Your task to perform on an android device: Toggle the flashlight Image 0: 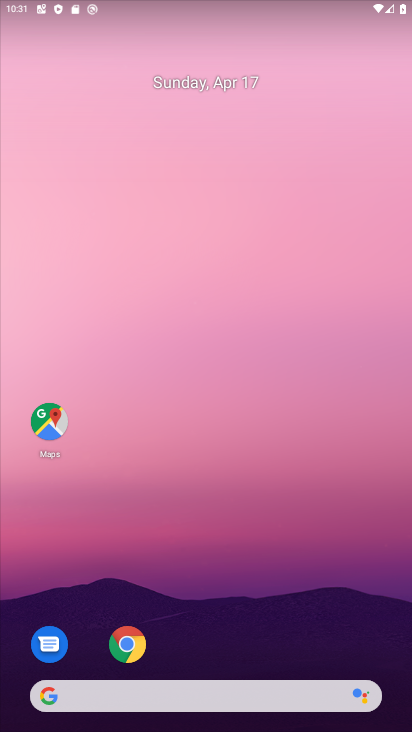
Step 0: drag from (222, 653) to (405, 94)
Your task to perform on an android device: Toggle the flashlight Image 1: 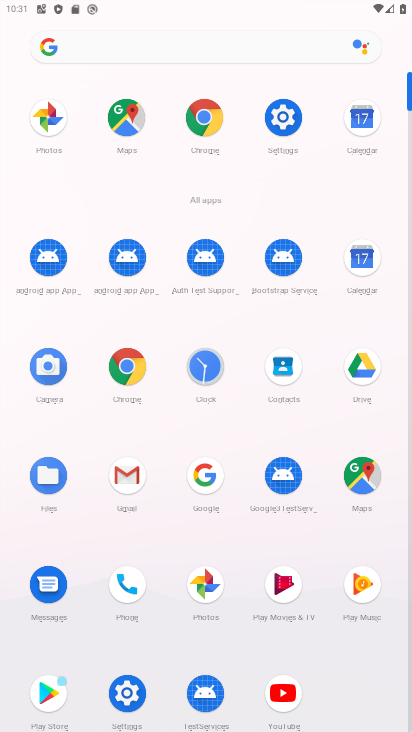
Step 1: click (288, 125)
Your task to perform on an android device: Toggle the flashlight Image 2: 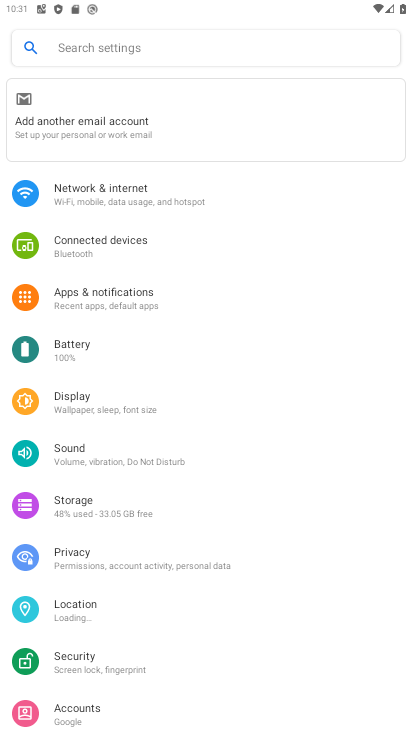
Step 2: click (172, 46)
Your task to perform on an android device: Toggle the flashlight Image 3: 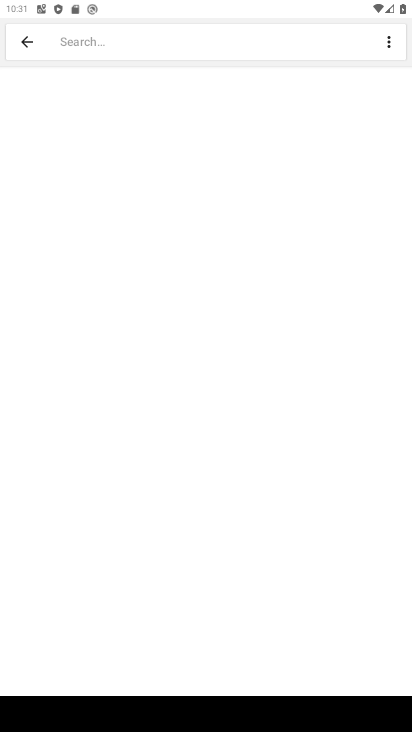
Step 3: type "flashlight"
Your task to perform on an android device: Toggle the flashlight Image 4: 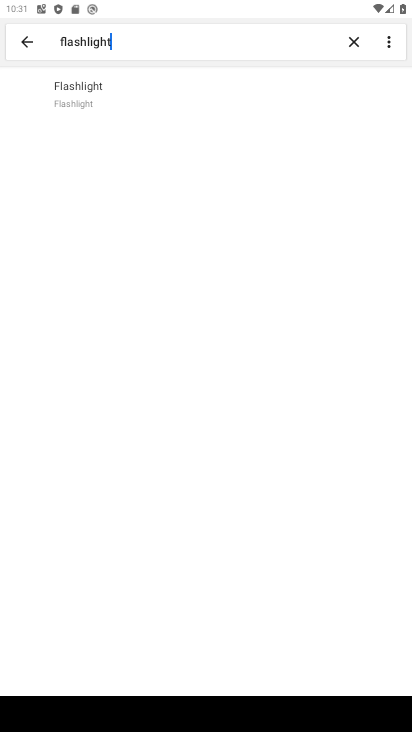
Step 4: click (98, 93)
Your task to perform on an android device: Toggle the flashlight Image 5: 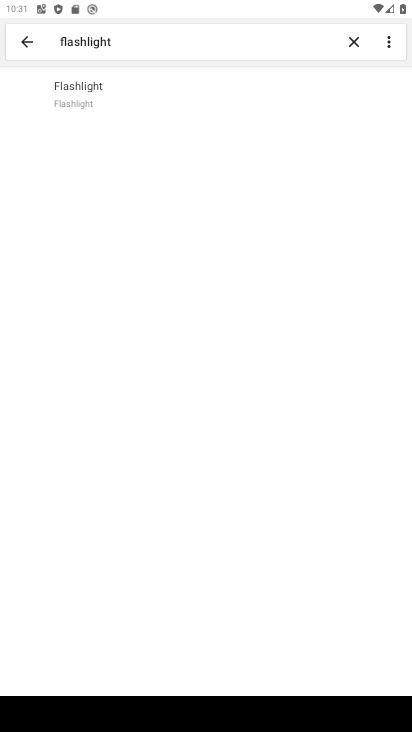
Step 5: click (98, 93)
Your task to perform on an android device: Toggle the flashlight Image 6: 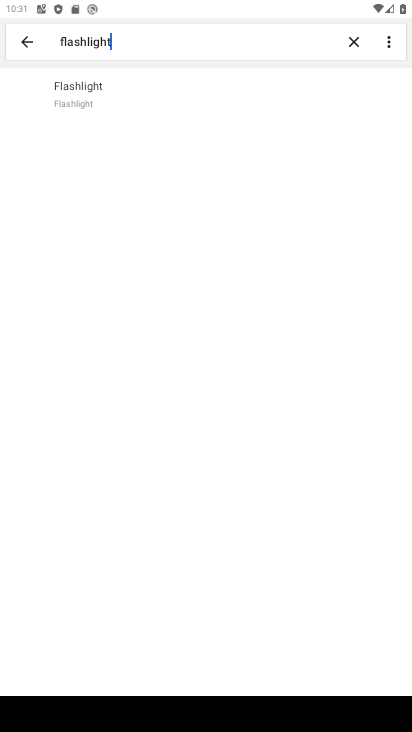
Step 6: click (98, 93)
Your task to perform on an android device: Toggle the flashlight Image 7: 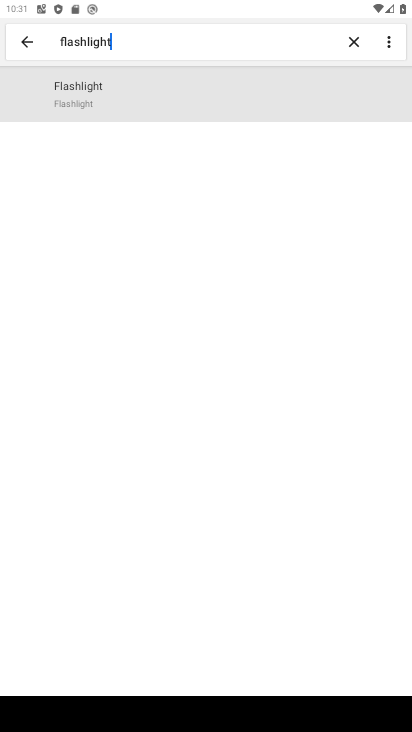
Step 7: click (378, 107)
Your task to perform on an android device: Toggle the flashlight Image 8: 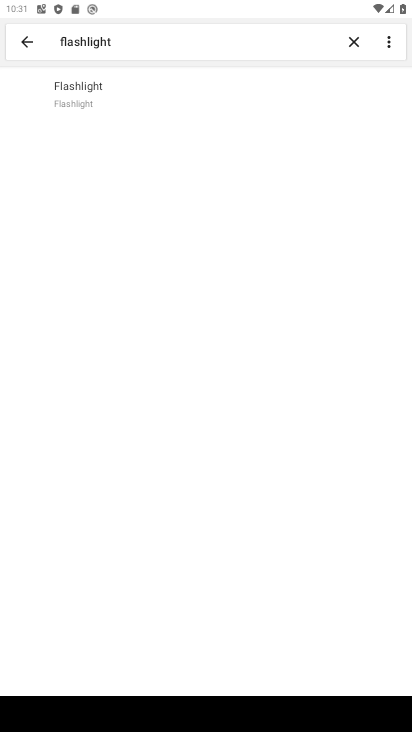
Step 8: task complete